Your task to perform on an android device: see creations saved in the google photos Image 0: 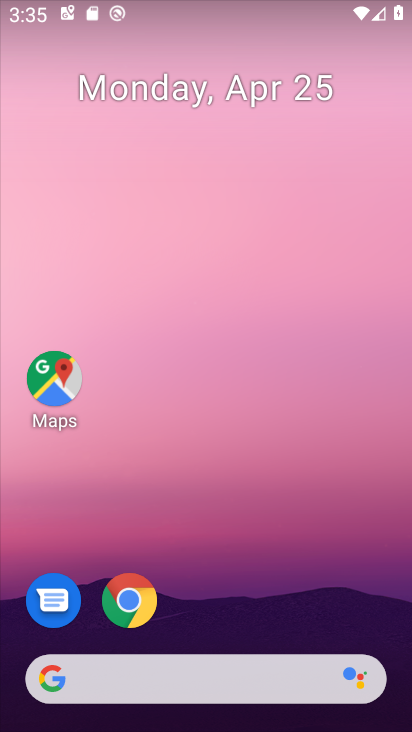
Step 0: drag from (310, 518) to (296, 29)
Your task to perform on an android device: see creations saved in the google photos Image 1: 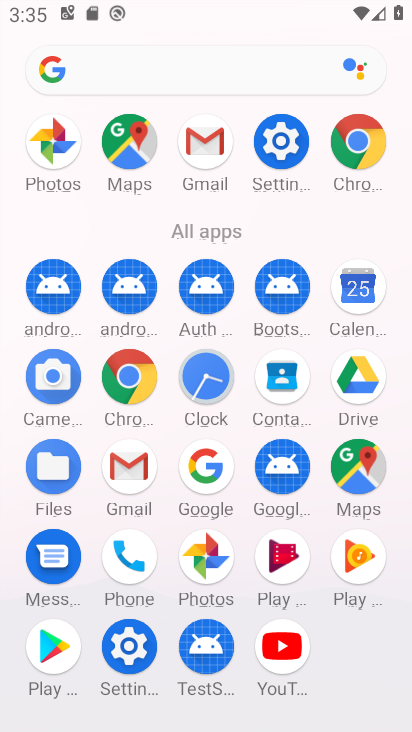
Step 1: drag from (14, 579) to (14, 341)
Your task to perform on an android device: see creations saved in the google photos Image 2: 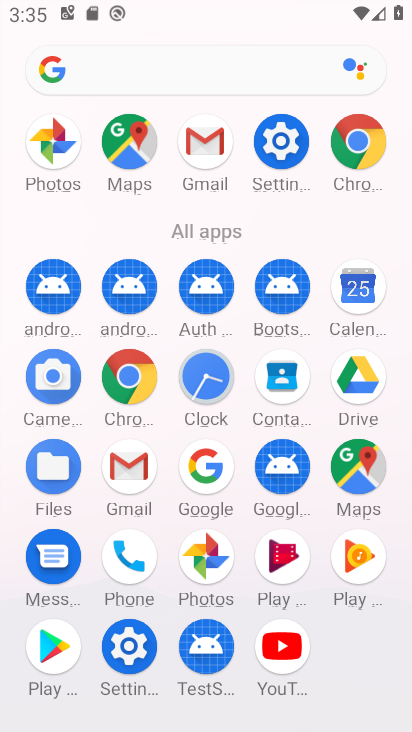
Step 2: drag from (0, 590) to (4, 321)
Your task to perform on an android device: see creations saved in the google photos Image 3: 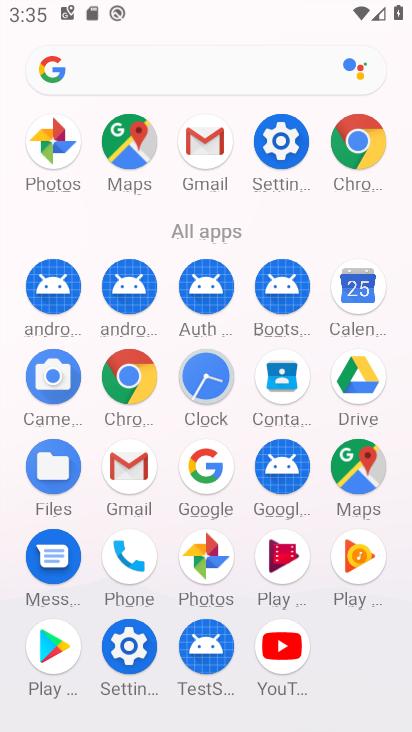
Step 3: click (204, 558)
Your task to perform on an android device: see creations saved in the google photos Image 4: 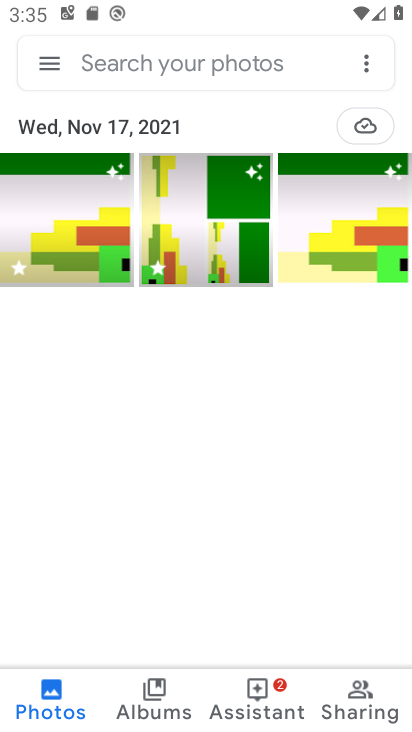
Step 4: click (58, 73)
Your task to perform on an android device: see creations saved in the google photos Image 5: 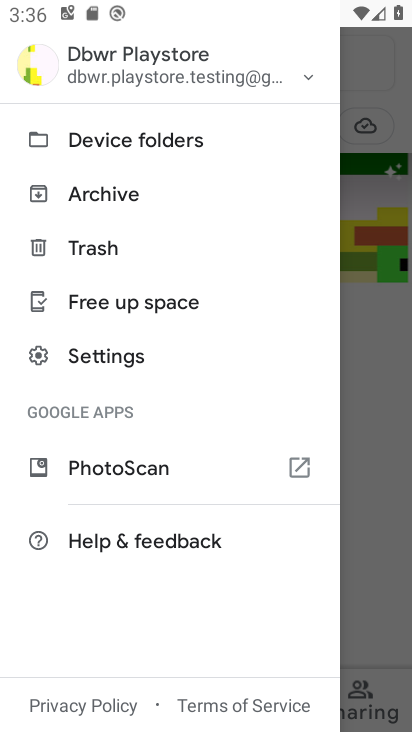
Step 5: click (121, 359)
Your task to perform on an android device: see creations saved in the google photos Image 6: 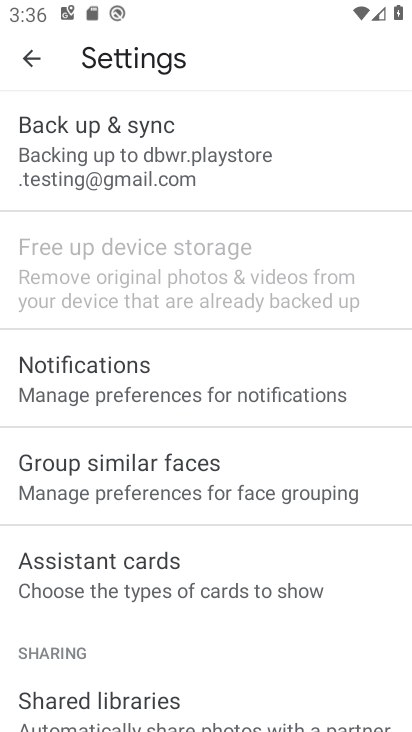
Step 6: drag from (219, 519) to (244, 158)
Your task to perform on an android device: see creations saved in the google photos Image 7: 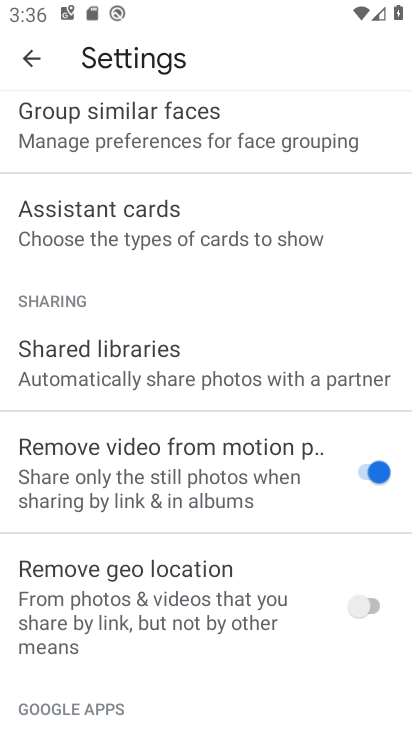
Step 7: drag from (231, 531) to (244, 141)
Your task to perform on an android device: see creations saved in the google photos Image 8: 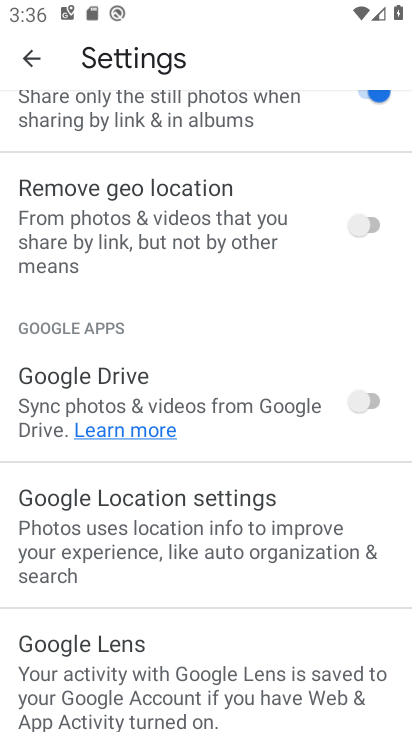
Step 8: drag from (212, 536) to (229, 153)
Your task to perform on an android device: see creations saved in the google photos Image 9: 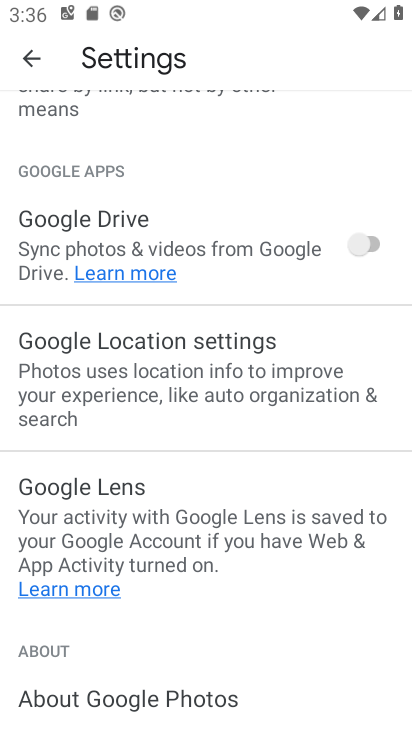
Step 9: drag from (232, 502) to (227, 152)
Your task to perform on an android device: see creations saved in the google photos Image 10: 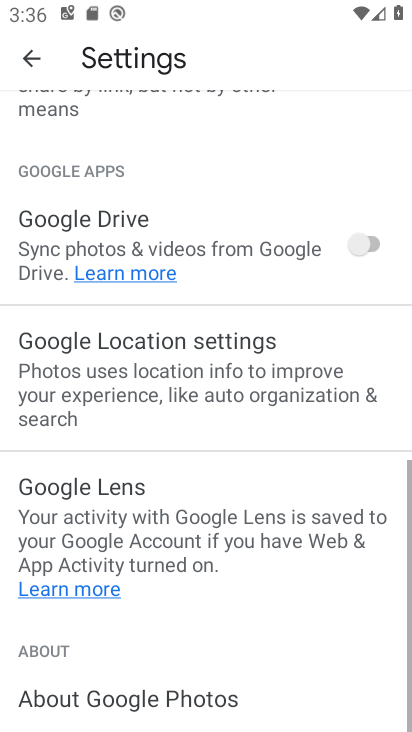
Step 10: drag from (234, 192) to (231, 598)
Your task to perform on an android device: see creations saved in the google photos Image 11: 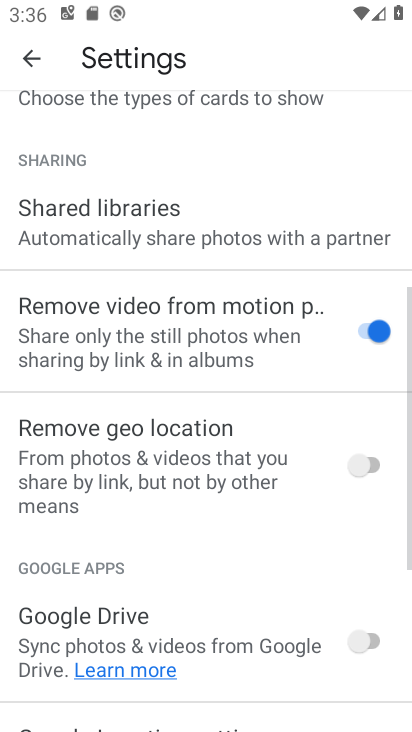
Step 11: drag from (229, 232) to (209, 647)
Your task to perform on an android device: see creations saved in the google photos Image 12: 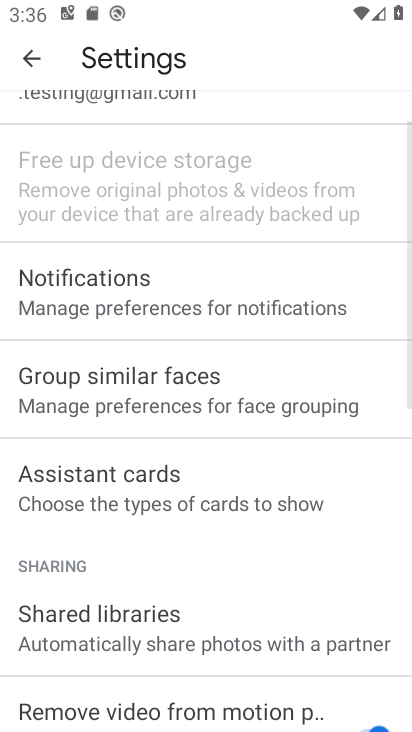
Step 12: drag from (240, 265) to (217, 611)
Your task to perform on an android device: see creations saved in the google photos Image 13: 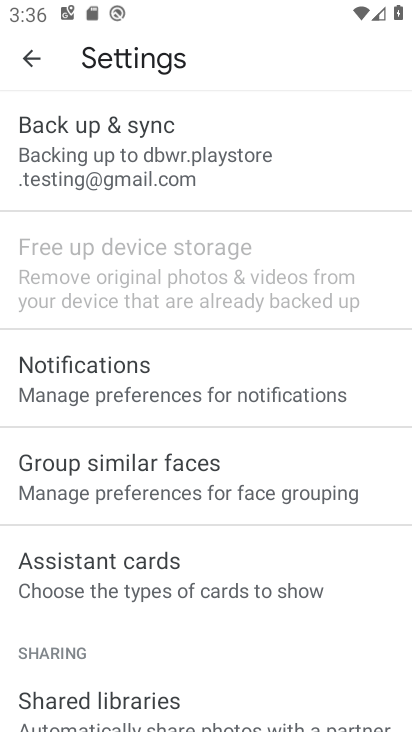
Step 13: click (231, 142)
Your task to perform on an android device: see creations saved in the google photos Image 14: 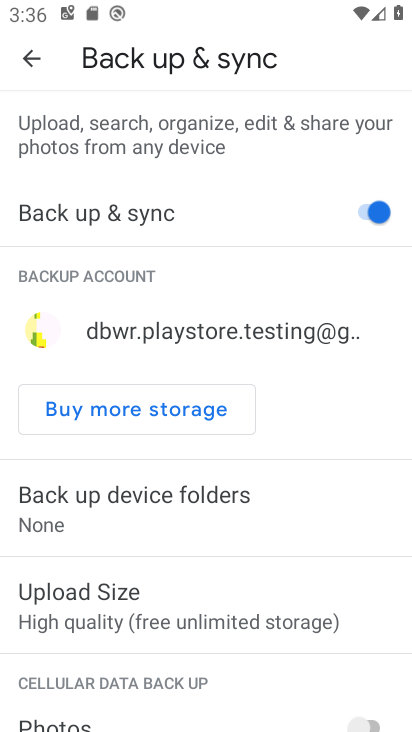
Step 14: task complete